Your task to perform on an android device: Open settings on Google Maps Image 0: 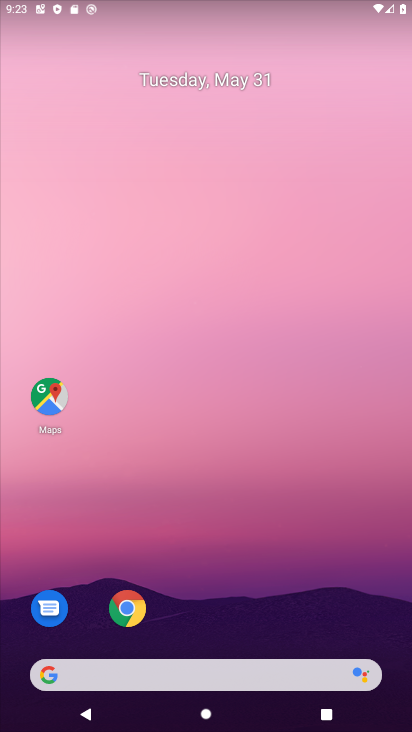
Step 0: click (61, 402)
Your task to perform on an android device: Open settings on Google Maps Image 1: 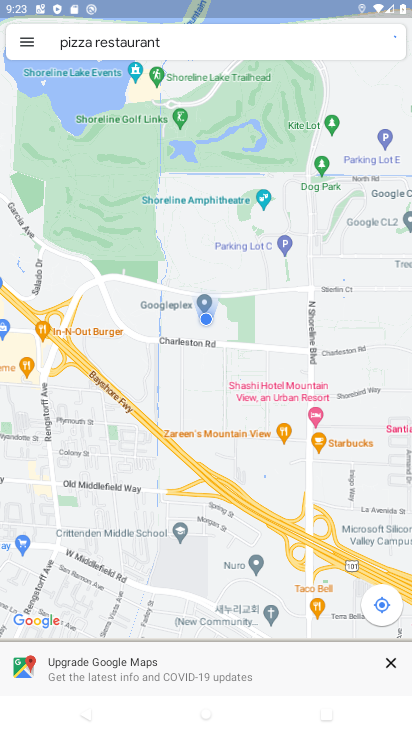
Step 1: click (19, 46)
Your task to perform on an android device: Open settings on Google Maps Image 2: 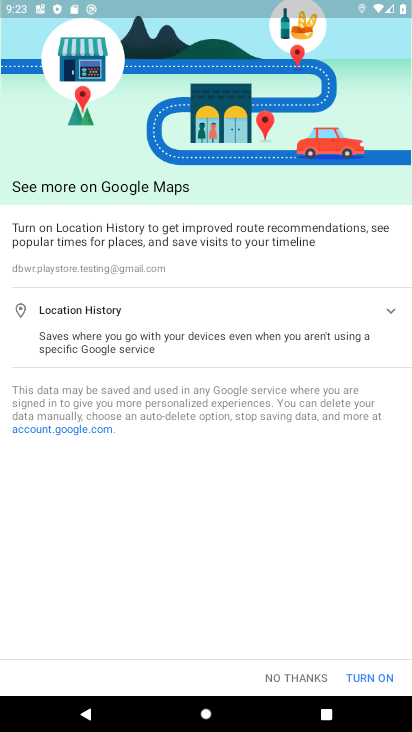
Step 2: click (357, 689)
Your task to perform on an android device: Open settings on Google Maps Image 3: 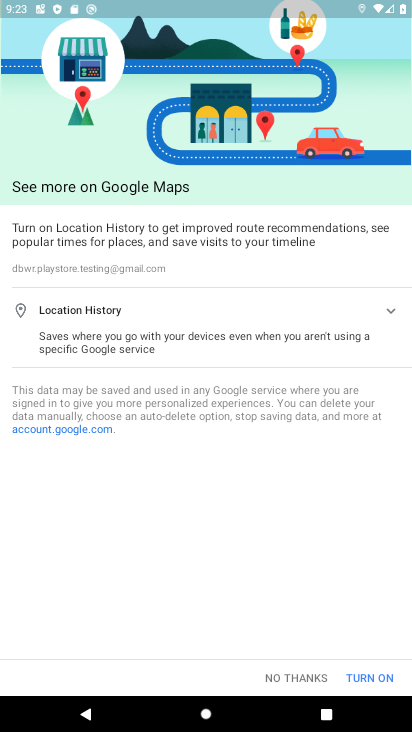
Step 3: click (357, 689)
Your task to perform on an android device: Open settings on Google Maps Image 4: 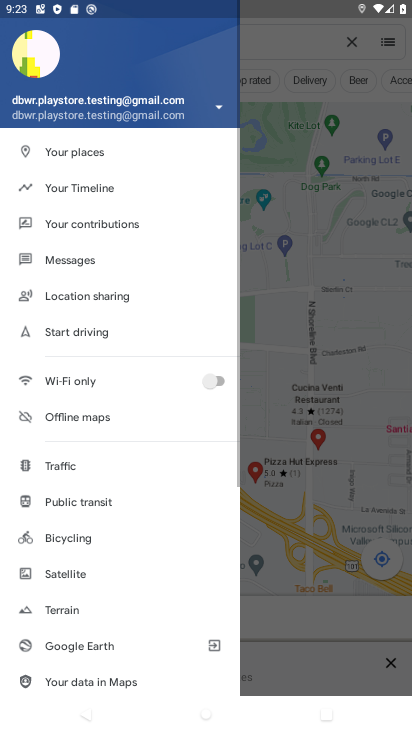
Step 4: drag from (57, 626) to (99, 345)
Your task to perform on an android device: Open settings on Google Maps Image 5: 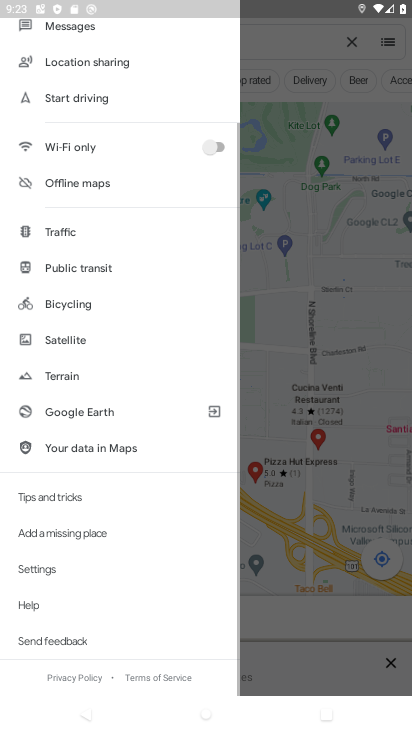
Step 5: click (67, 569)
Your task to perform on an android device: Open settings on Google Maps Image 6: 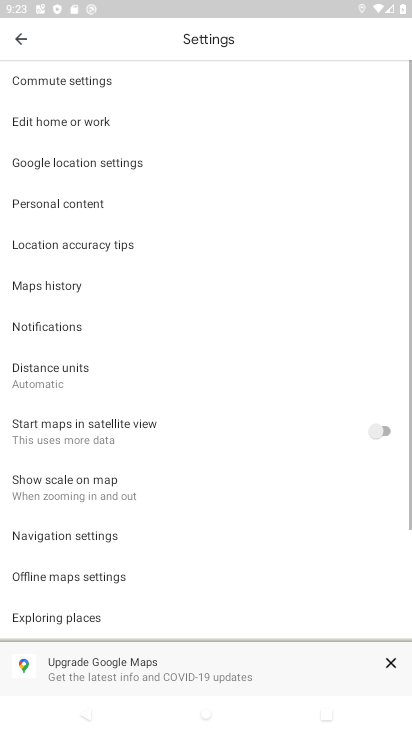
Step 6: task complete